Your task to perform on an android device: Search for seafood restaurants on Google Maps Image 0: 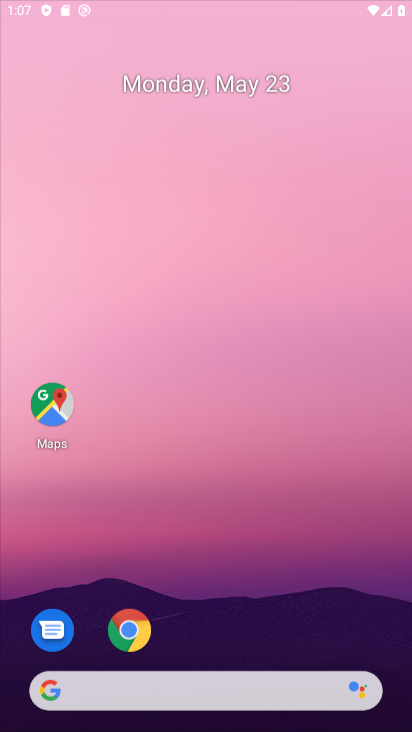
Step 0: click (221, 138)
Your task to perform on an android device: Search for seafood restaurants on Google Maps Image 1: 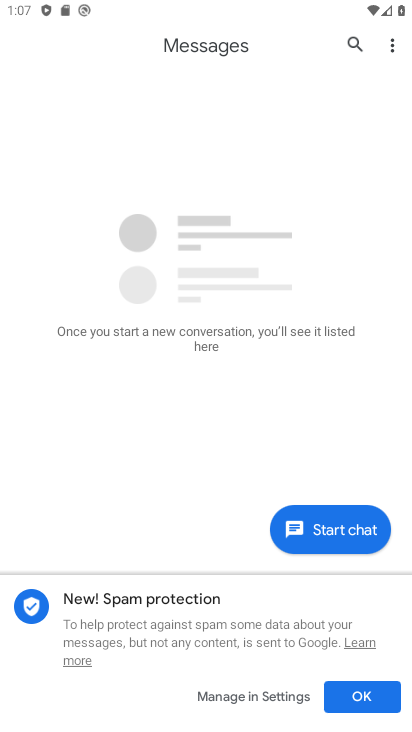
Step 1: press home button
Your task to perform on an android device: Search for seafood restaurants on Google Maps Image 2: 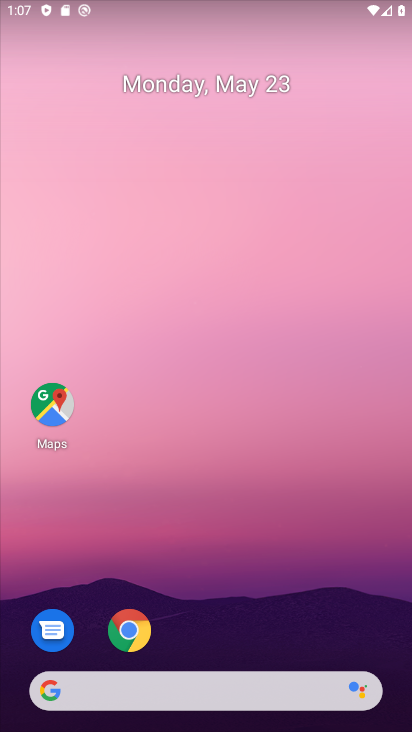
Step 2: click (60, 406)
Your task to perform on an android device: Search for seafood restaurants on Google Maps Image 3: 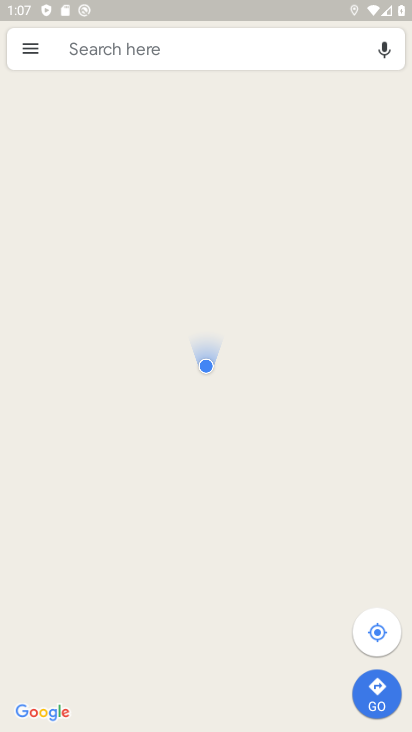
Step 3: click (209, 59)
Your task to perform on an android device: Search for seafood restaurants on Google Maps Image 4: 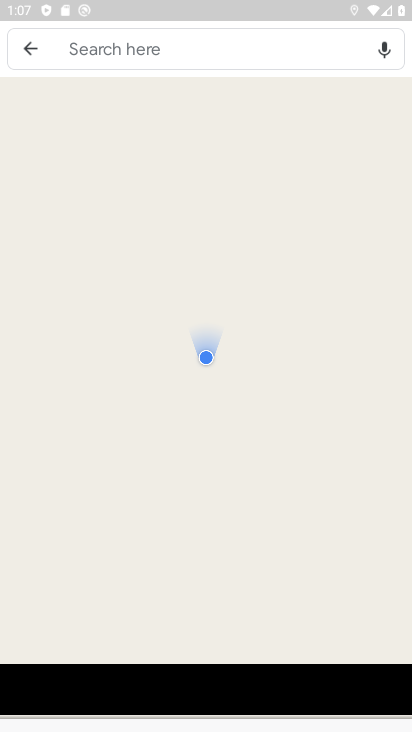
Step 4: click (205, 58)
Your task to perform on an android device: Search for seafood restaurants on Google Maps Image 5: 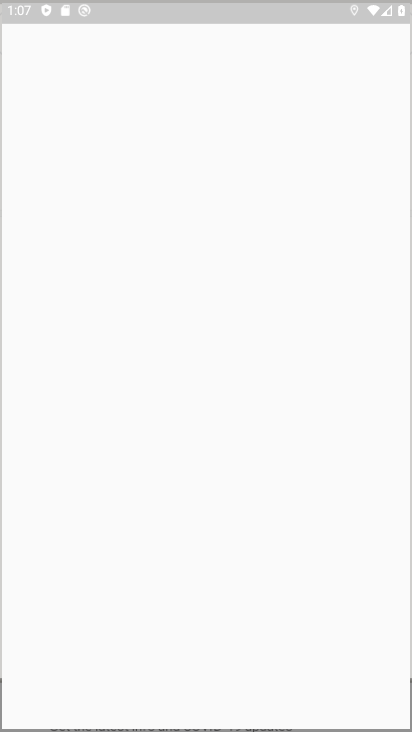
Step 5: click (80, 176)
Your task to perform on an android device: Search for seafood restaurants on Google Maps Image 6: 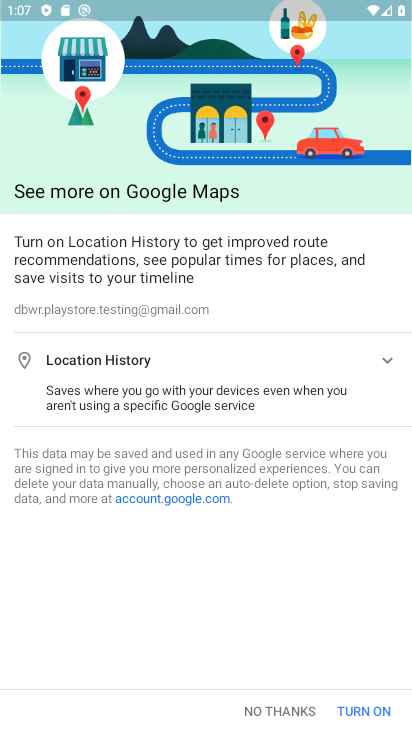
Step 6: click (272, 697)
Your task to perform on an android device: Search for seafood restaurants on Google Maps Image 7: 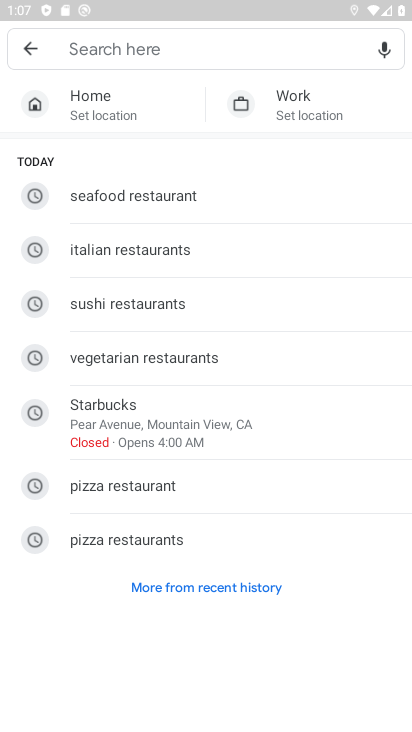
Step 7: click (158, 201)
Your task to perform on an android device: Search for seafood restaurants on Google Maps Image 8: 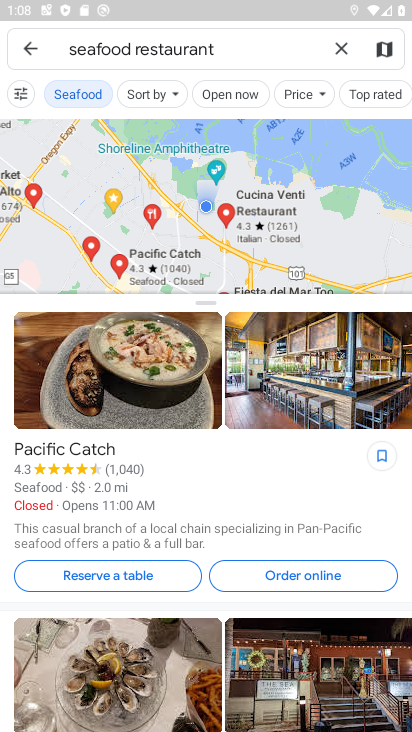
Step 8: task complete